Your task to perform on an android device: What's the weather going to be this weekend? Image 0: 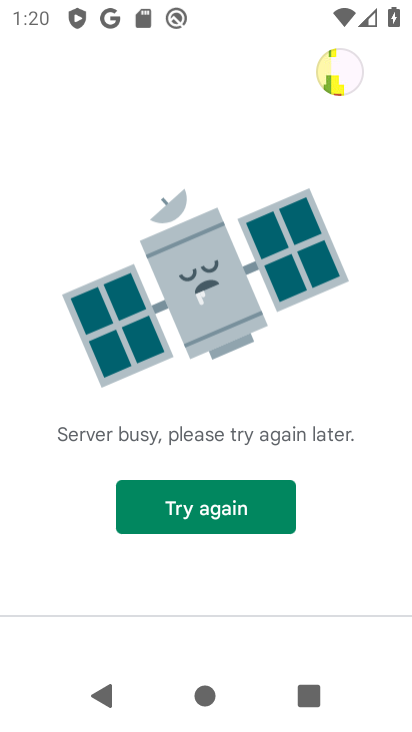
Step 0: press home button
Your task to perform on an android device: What's the weather going to be this weekend? Image 1: 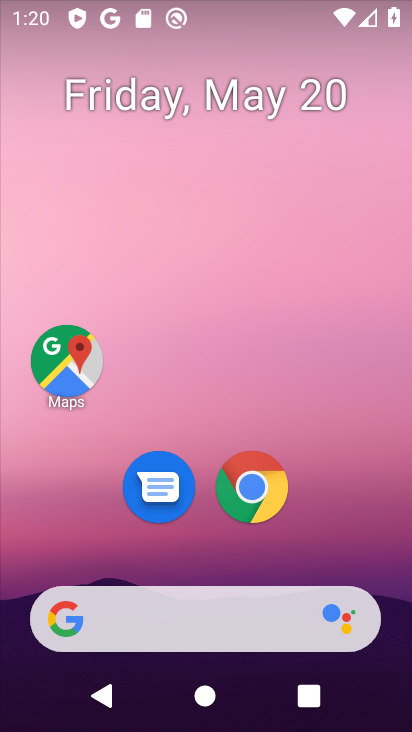
Step 1: drag from (39, 216) to (362, 254)
Your task to perform on an android device: What's the weather going to be this weekend? Image 2: 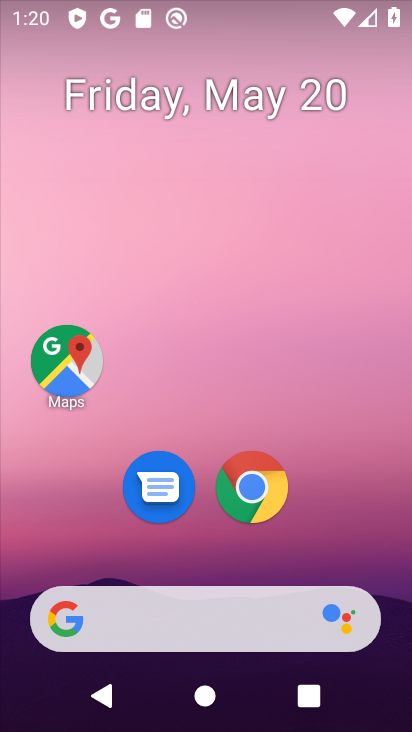
Step 2: drag from (4, 198) to (411, 284)
Your task to perform on an android device: What's the weather going to be this weekend? Image 3: 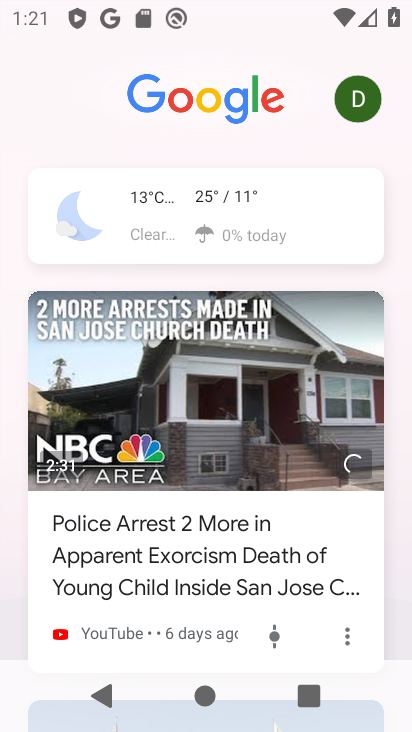
Step 3: click (250, 191)
Your task to perform on an android device: What's the weather going to be this weekend? Image 4: 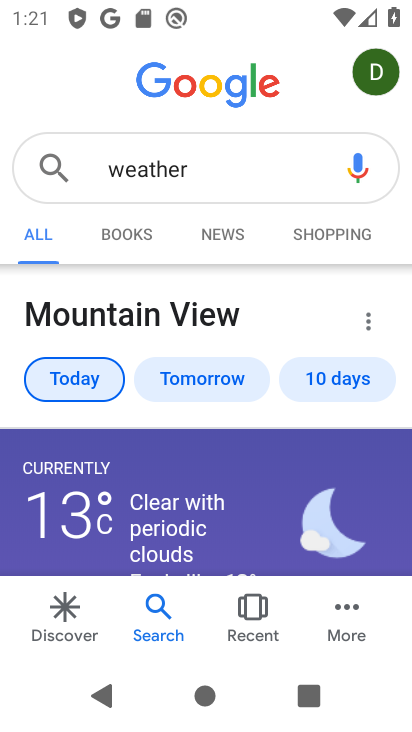
Step 4: task complete